Your task to perform on an android device: Show me recent news Image 0: 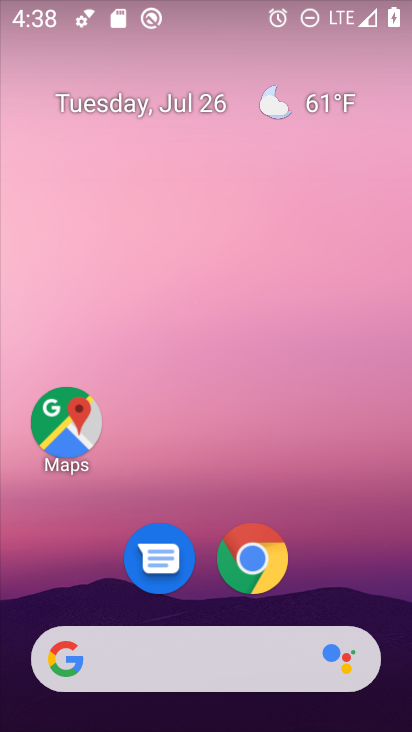
Step 0: click (148, 668)
Your task to perform on an android device: Show me recent news Image 1: 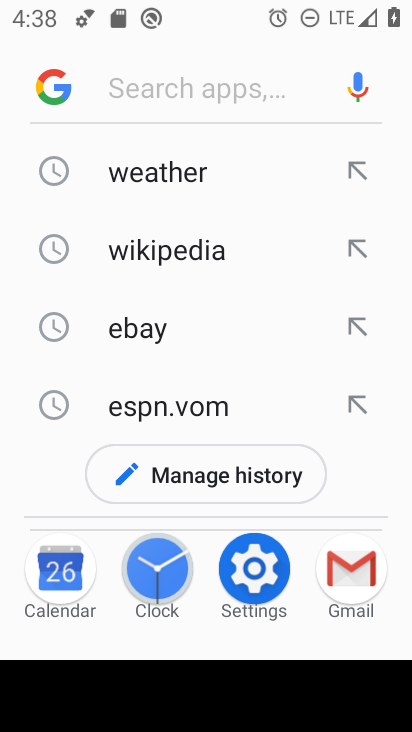
Step 1: click (157, 87)
Your task to perform on an android device: Show me recent news Image 2: 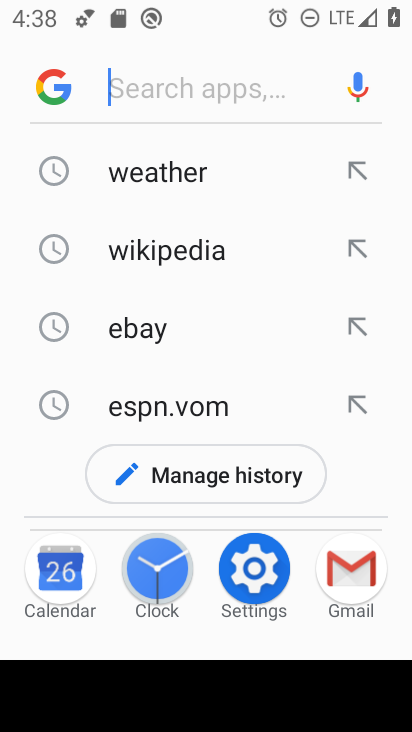
Step 2: type "recent news"
Your task to perform on an android device: Show me recent news Image 3: 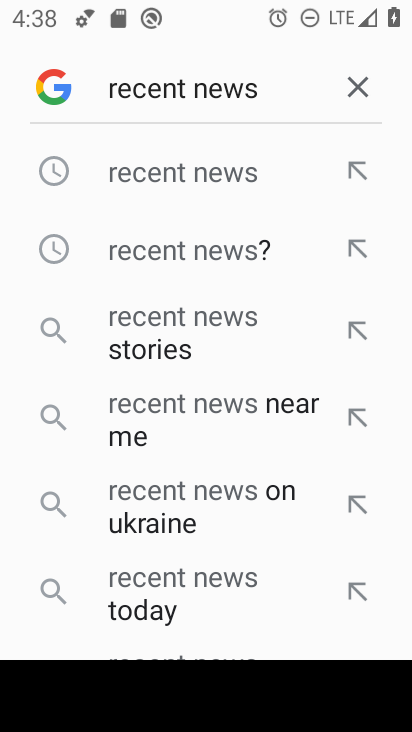
Step 3: click (203, 169)
Your task to perform on an android device: Show me recent news Image 4: 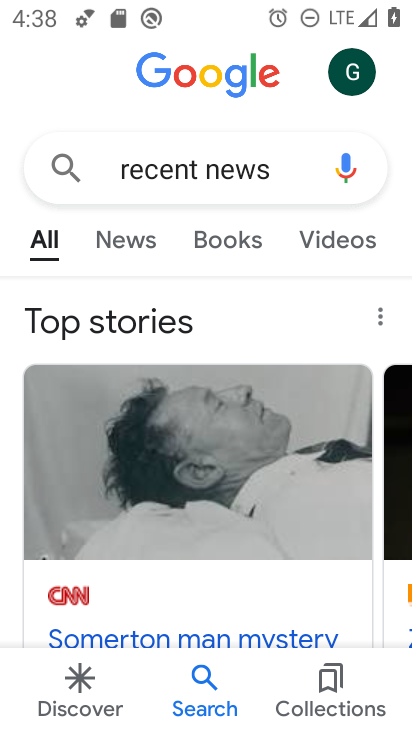
Step 4: task complete